Your task to perform on an android device: When is my next meeting? Image 0: 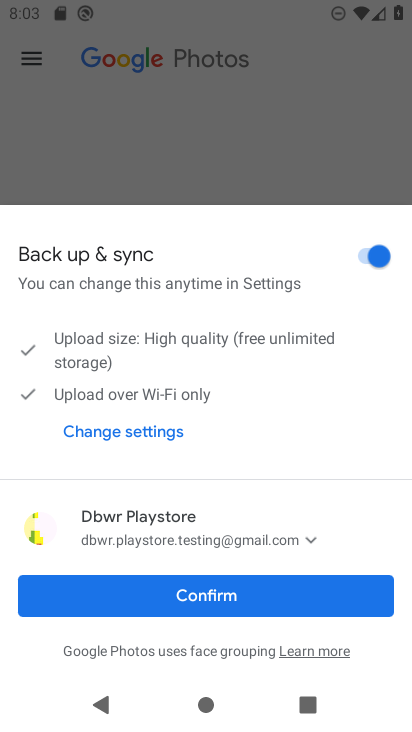
Step 0: press home button
Your task to perform on an android device: When is my next meeting? Image 1: 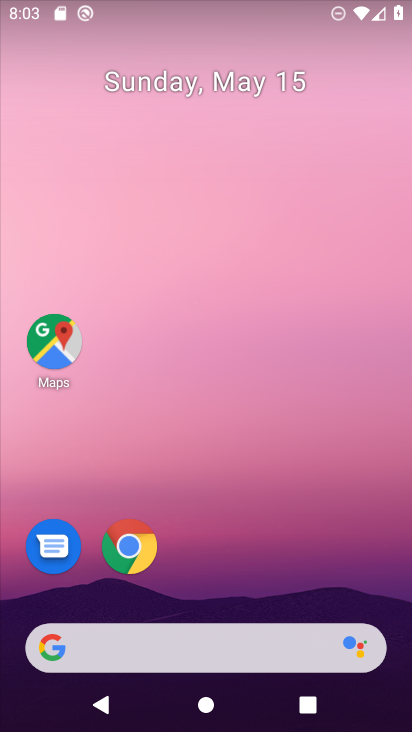
Step 1: drag from (244, 492) to (239, 86)
Your task to perform on an android device: When is my next meeting? Image 2: 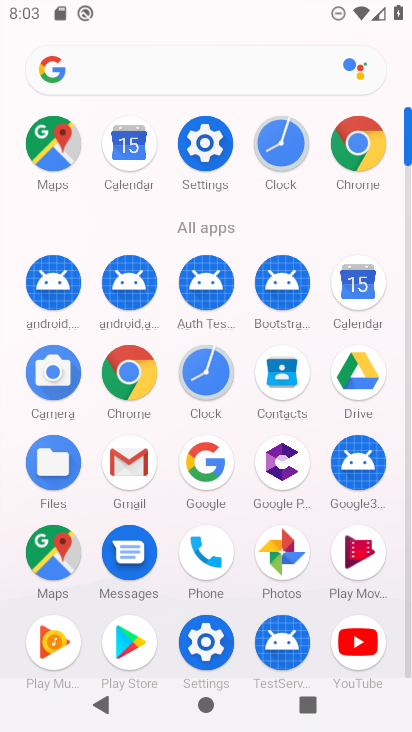
Step 2: click (129, 146)
Your task to perform on an android device: When is my next meeting? Image 3: 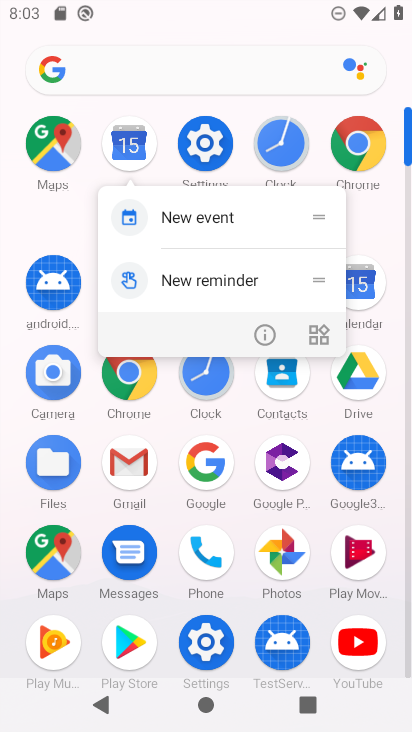
Step 3: click (129, 135)
Your task to perform on an android device: When is my next meeting? Image 4: 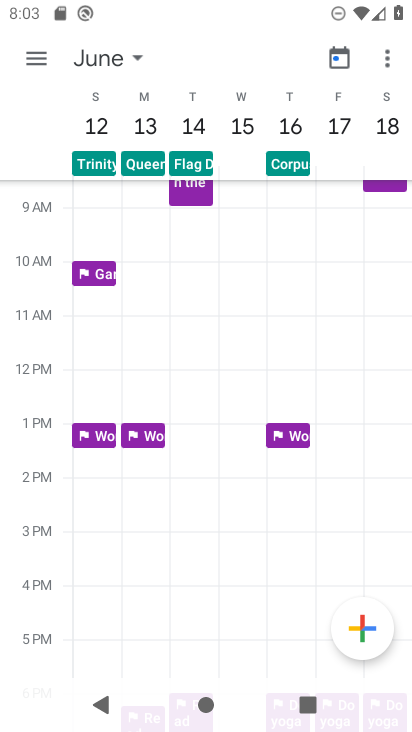
Step 4: drag from (83, 364) to (405, 287)
Your task to perform on an android device: When is my next meeting? Image 5: 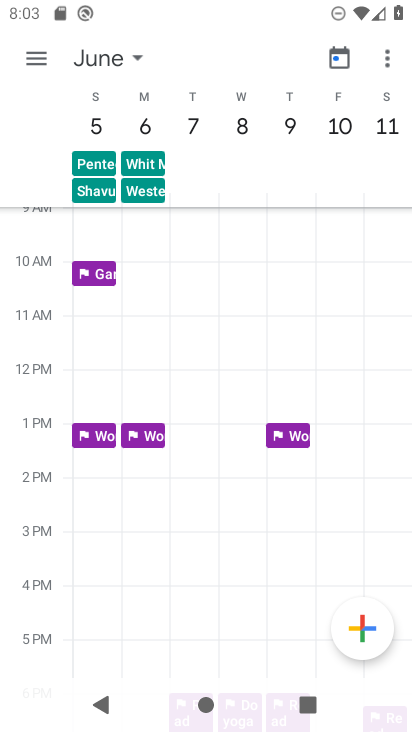
Step 5: drag from (101, 371) to (408, 288)
Your task to perform on an android device: When is my next meeting? Image 6: 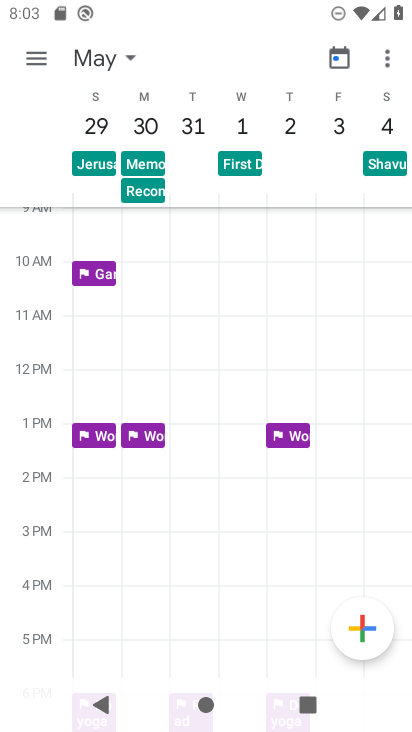
Step 6: drag from (82, 358) to (399, 304)
Your task to perform on an android device: When is my next meeting? Image 7: 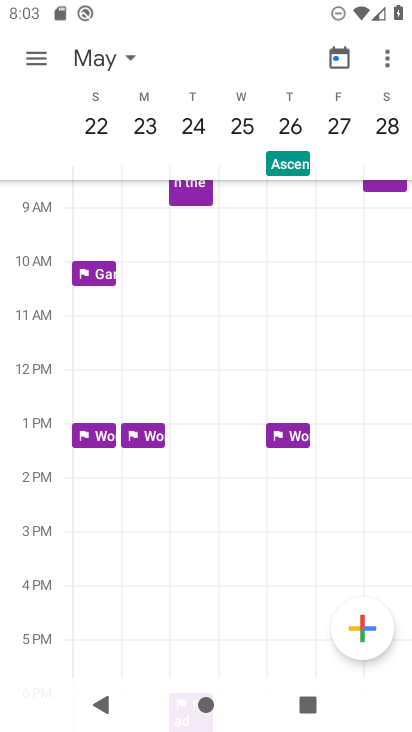
Step 7: drag from (100, 370) to (409, 413)
Your task to perform on an android device: When is my next meeting? Image 8: 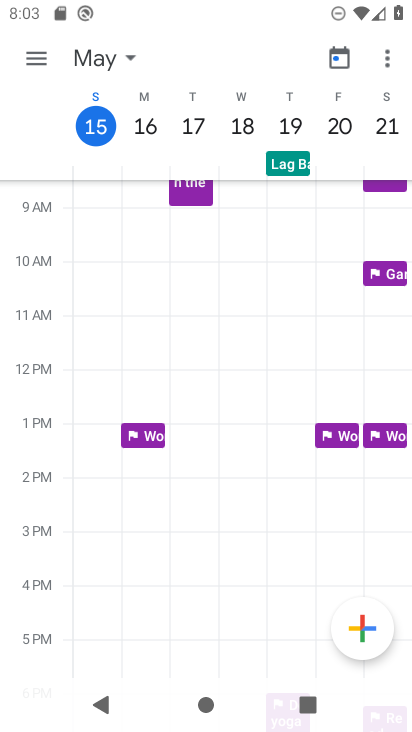
Step 8: drag from (96, 490) to (411, 455)
Your task to perform on an android device: When is my next meeting? Image 9: 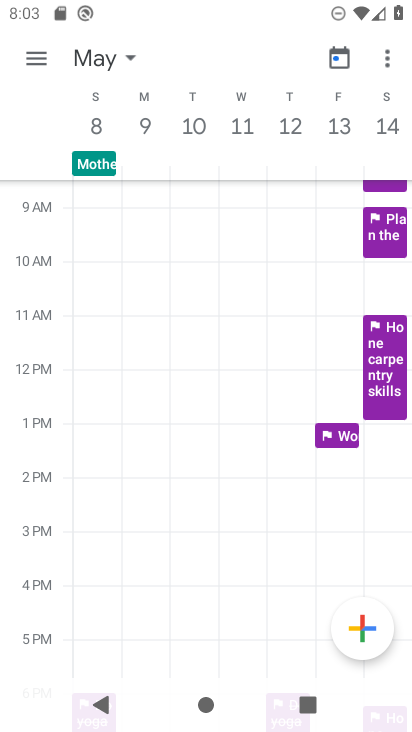
Step 9: drag from (369, 479) to (27, 497)
Your task to perform on an android device: When is my next meeting? Image 10: 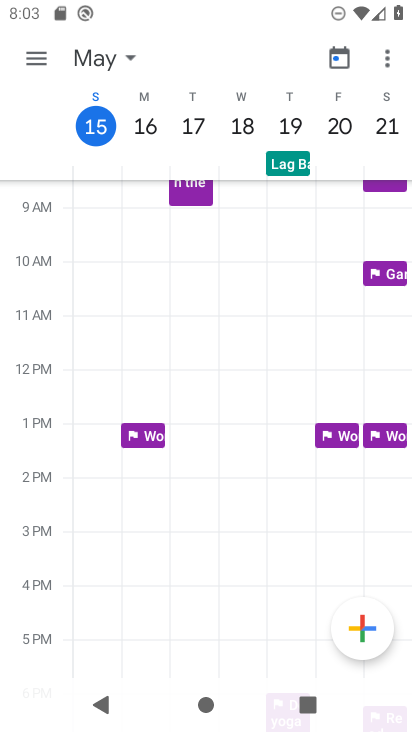
Step 10: click (94, 112)
Your task to perform on an android device: When is my next meeting? Image 11: 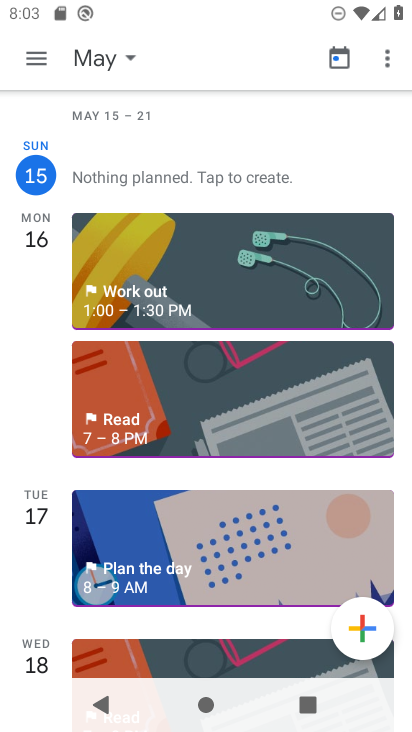
Step 11: click (36, 54)
Your task to perform on an android device: When is my next meeting? Image 12: 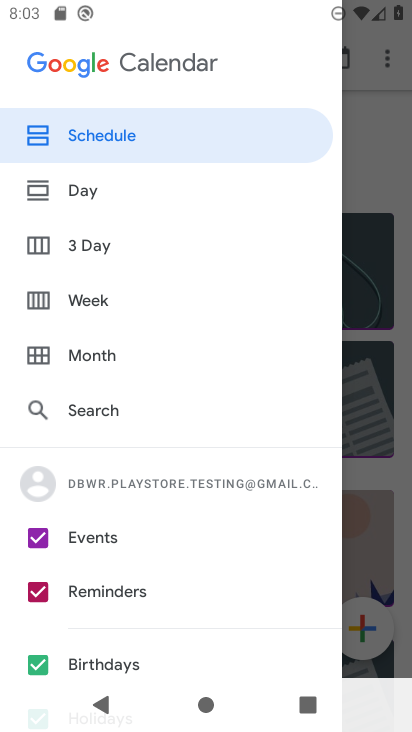
Step 12: click (372, 112)
Your task to perform on an android device: When is my next meeting? Image 13: 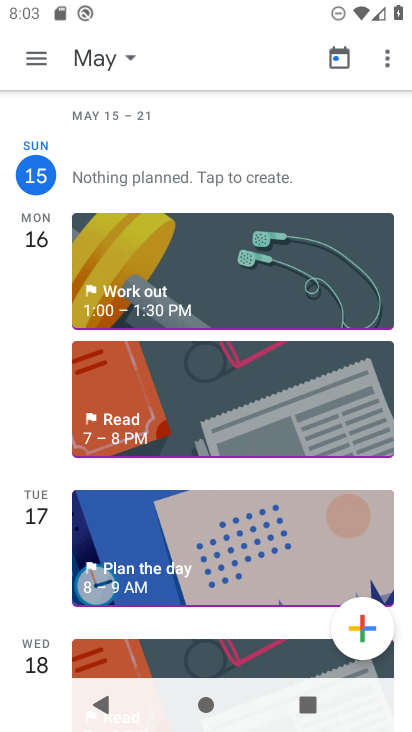
Step 13: task complete